Your task to perform on an android device: Open calendar and show me the fourth week of next month Image 0: 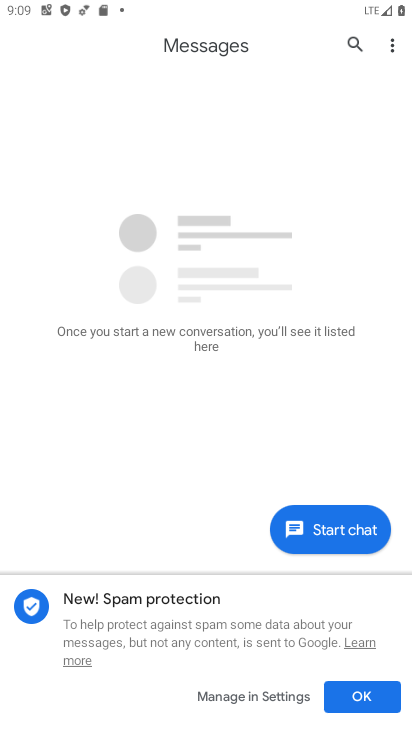
Step 0: press home button
Your task to perform on an android device: Open calendar and show me the fourth week of next month Image 1: 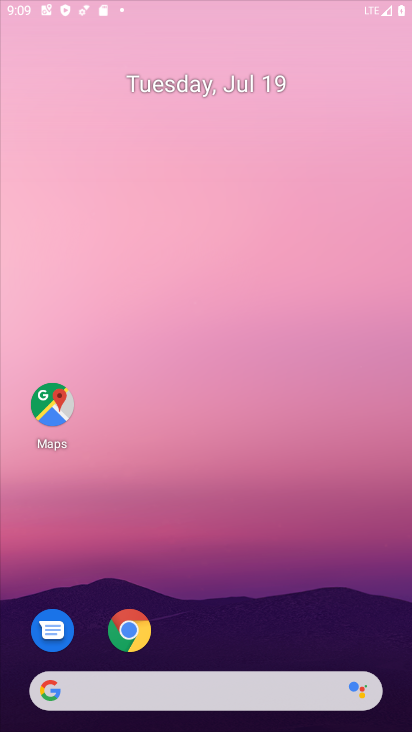
Step 1: drag from (207, 662) to (236, 97)
Your task to perform on an android device: Open calendar and show me the fourth week of next month Image 2: 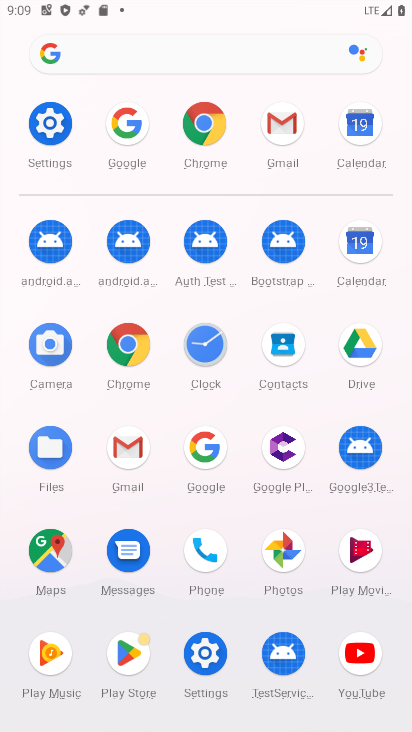
Step 2: click (360, 241)
Your task to perform on an android device: Open calendar and show me the fourth week of next month Image 3: 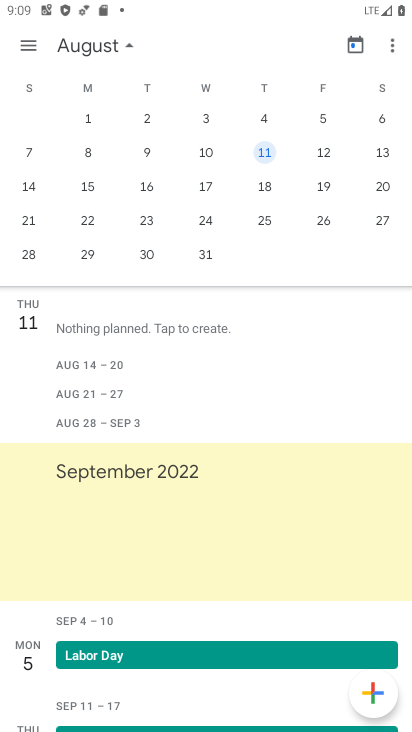
Step 3: click (260, 219)
Your task to perform on an android device: Open calendar and show me the fourth week of next month Image 4: 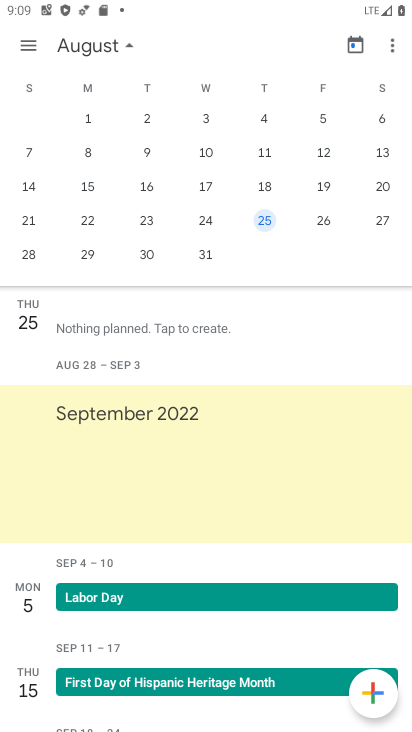
Step 4: task complete